Your task to perform on an android device: Open Google Chrome Image 0: 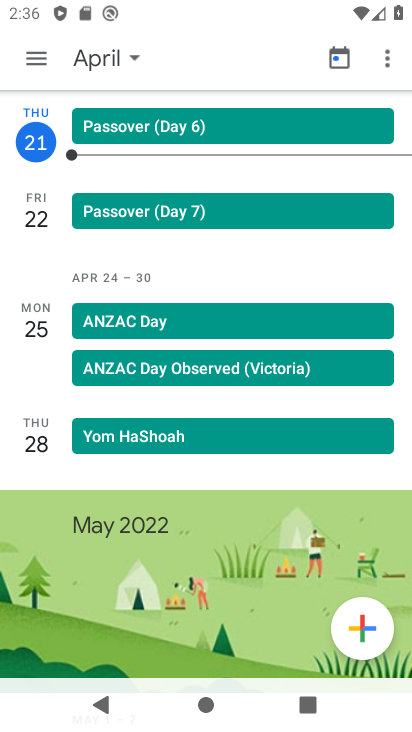
Step 0: press home button
Your task to perform on an android device: Open Google Chrome Image 1: 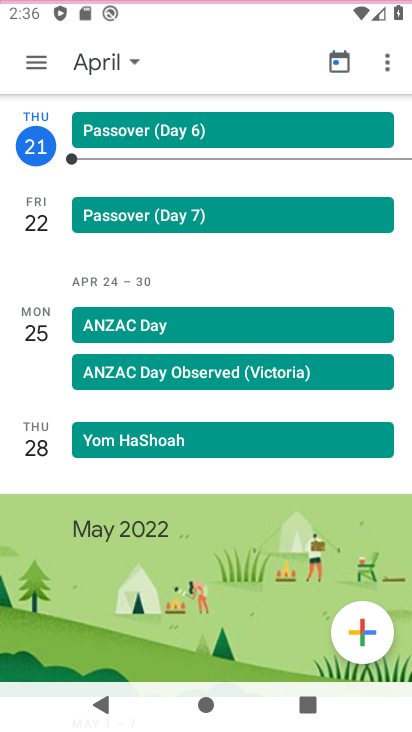
Step 1: press home button
Your task to perform on an android device: Open Google Chrome Image 2: 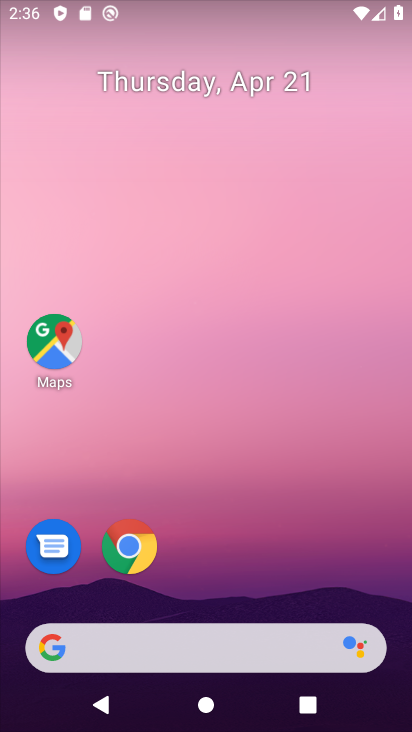
Step 2: click (128, 543)
Your task to perform on an android device: Open Google Chrome Image 3: 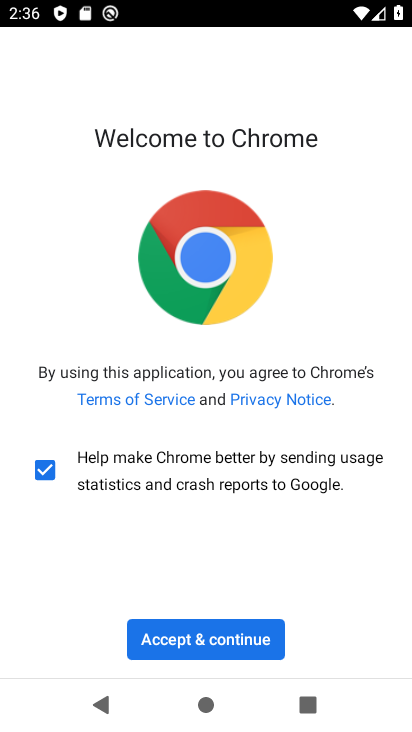
Step 3: click (240, 632)
Your task to perform on an android device: Open Google Chrome Image 4: 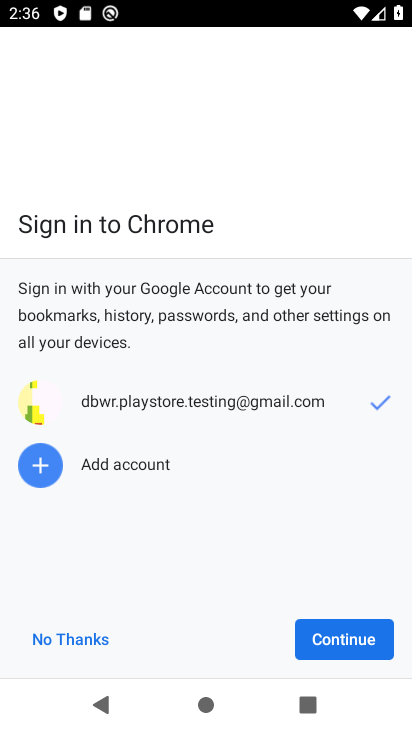
Step 4: click (310, 629)
Your task to perform on an android device: Open Google Chrome Image 5: 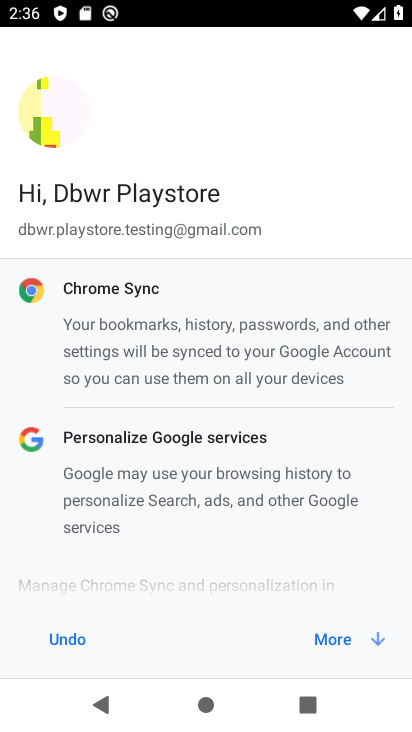
Step 5: click (309, 632)
Your task to perform on an android device: Open Google Chrome Image 6: 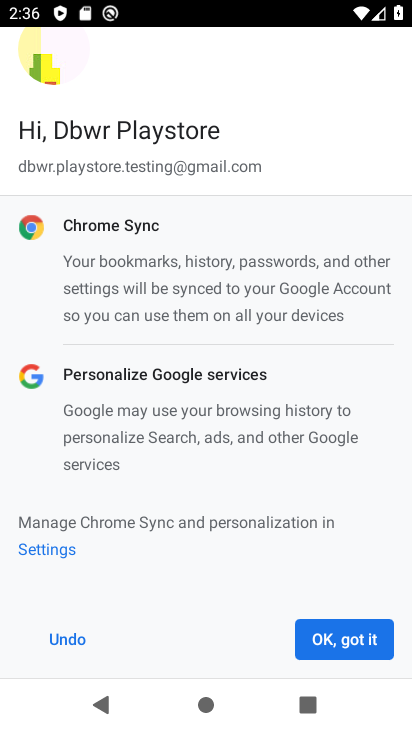
Step 6: click (309, 632)
Your task to perform on an android device: Open Google Chrome Image 7: 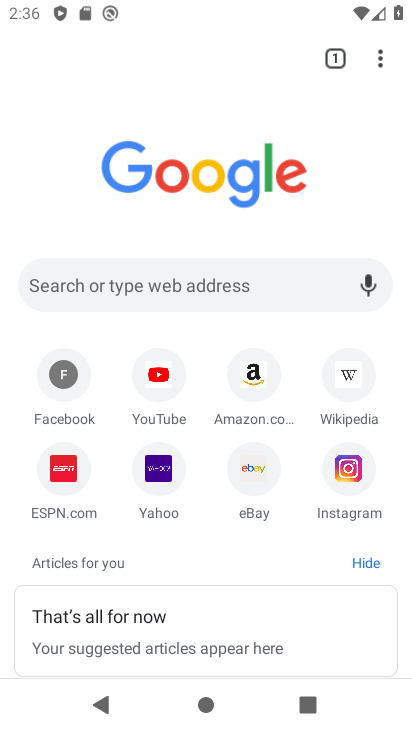
Step 7: task complete